Your task to perform on an android device: Go to location settings Image 0: 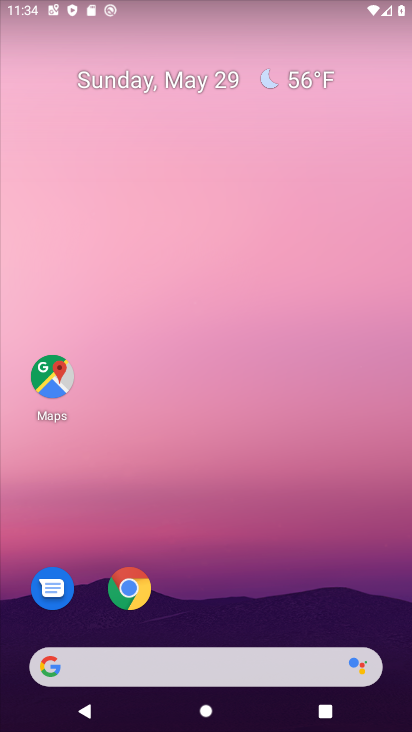
Step 0: drag from (278, 570) to (230, 72)
Your task to perform on an android device: Go to location settings Image 1: 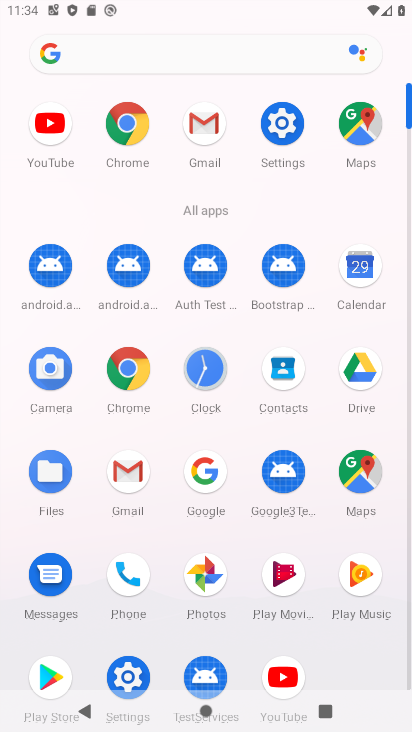
Step 1: click (123, 664)
Your task to perform on an android device: Go to location settings Image 2: 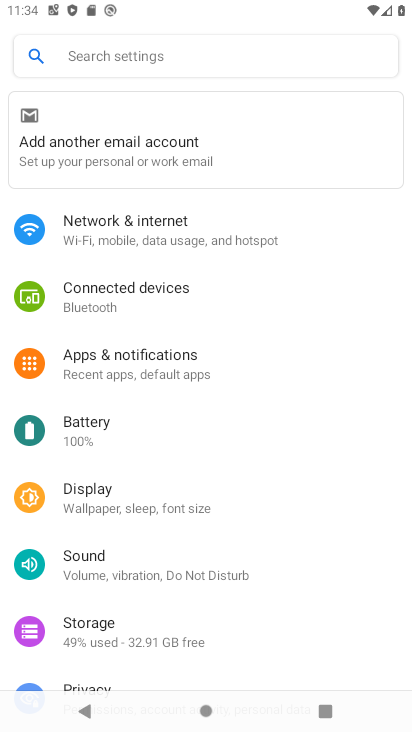
Step 2: drag from (168, 621) to (193, 259)
Your task to perform on an android device: Go to location settings Image 3: 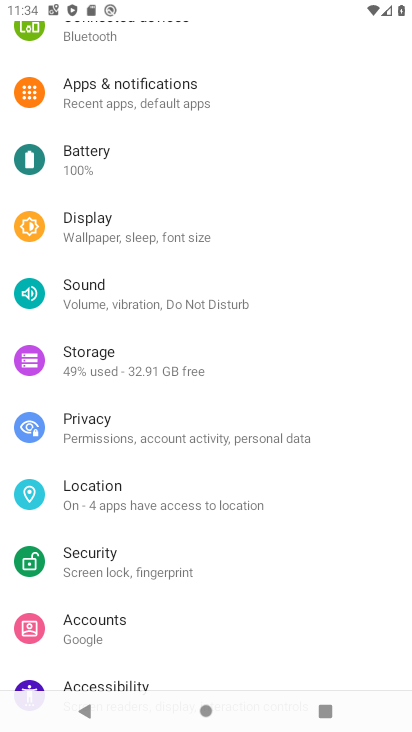
Step 3: click (81, 492)
Your task to perform on an android device: Go to location settings Image 4: 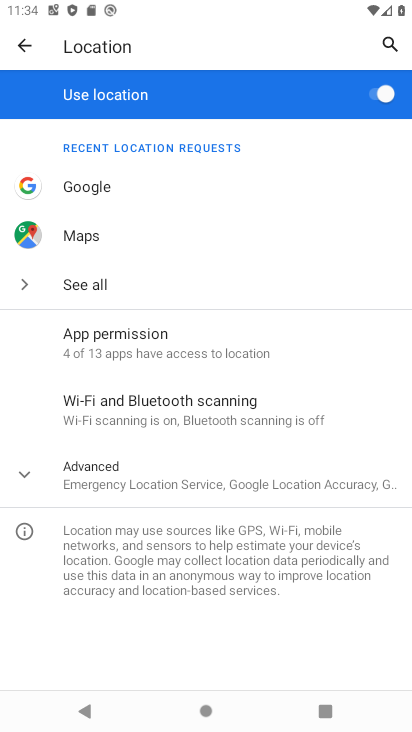
Step 4: task complete